Your task to perform on an android device: Search for pizza restaurants on Maps Image 0: 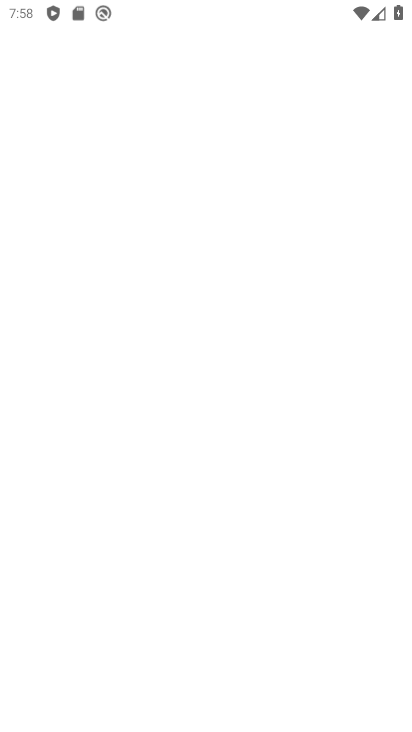
Step 0: drag from (317, 569) to (368, 266)
Your task to perform on an android device: Search for pizza restaurants on Maps Image 1: 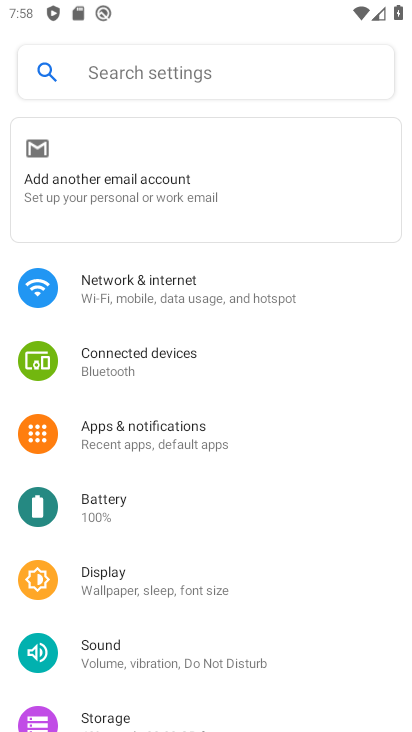
Step 1: press home button
Your task to perform on an android device: Search for pizza restaurants on Maps Image 2: 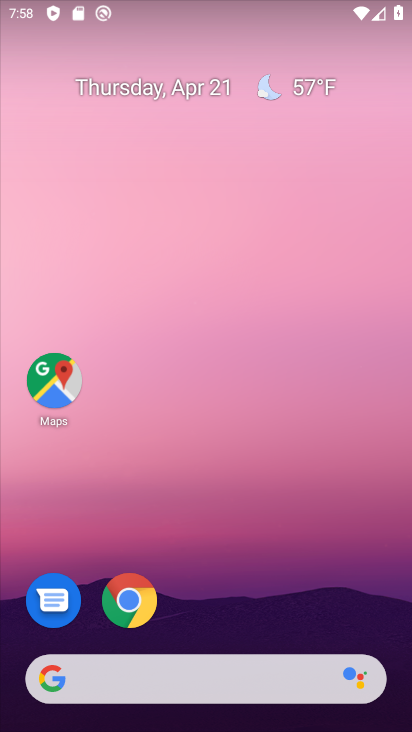
Step 2: click (47, 384)
Your task to perform on an android device: Search for pizza restaurants on Maps Image 3: 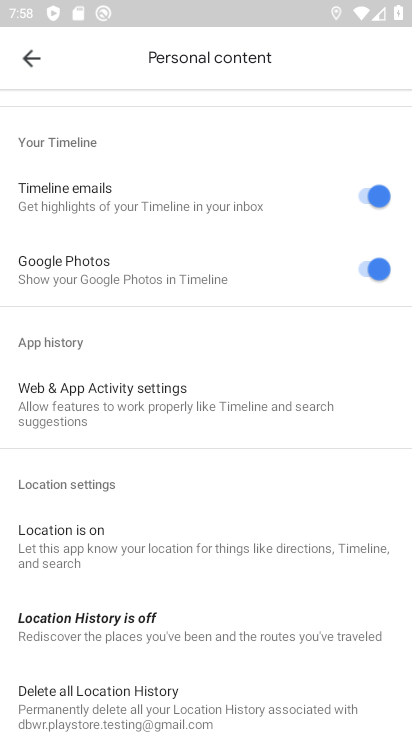
Step 3: click (23, 56)
Your task to perform on an android device: Search for pizza restaurants on Maps Image 4: 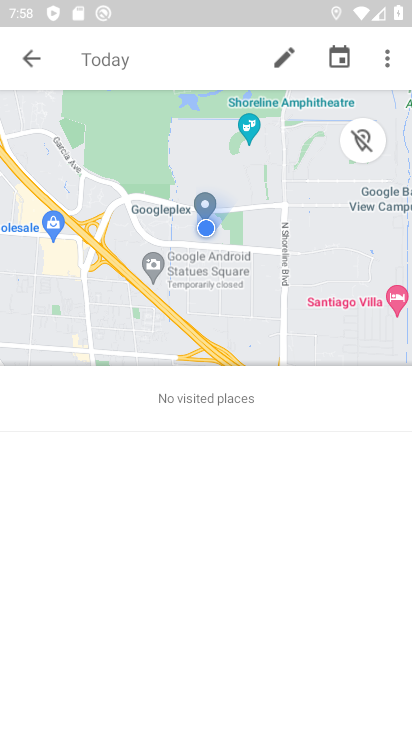
Step 4: click (31, 64)
Your task to perform on an android device: Search for pizza restaurants on Maps Image 5: 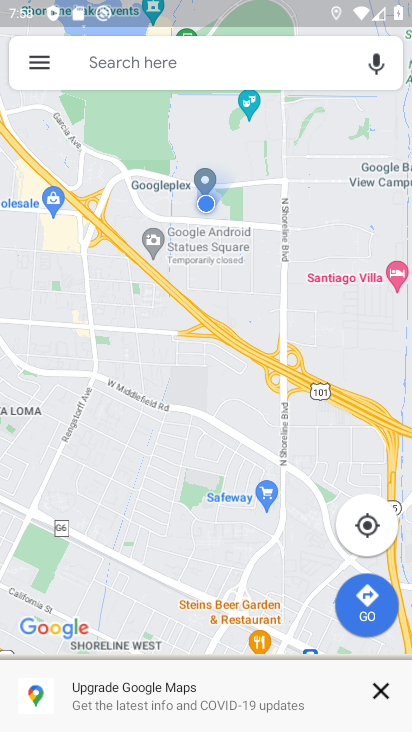
Step 5: click (150, 60)
Your task to perform on an android device: Search for pizza restaurants on Maps Image 6: 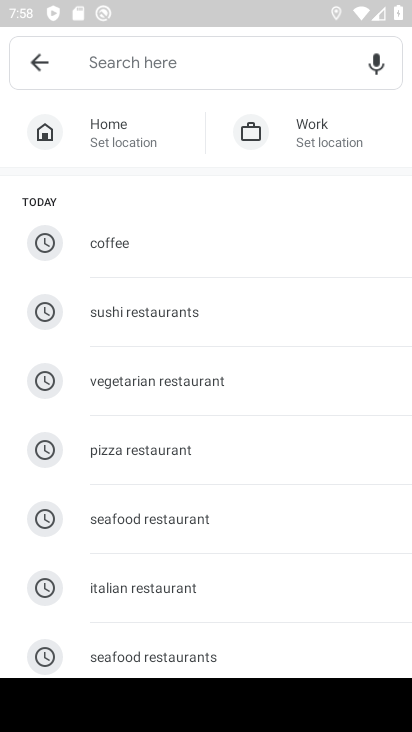
Step 6: click (182, 451)
Your task to perform on an android device: Search for pizza restaurants on Maps Image 7: 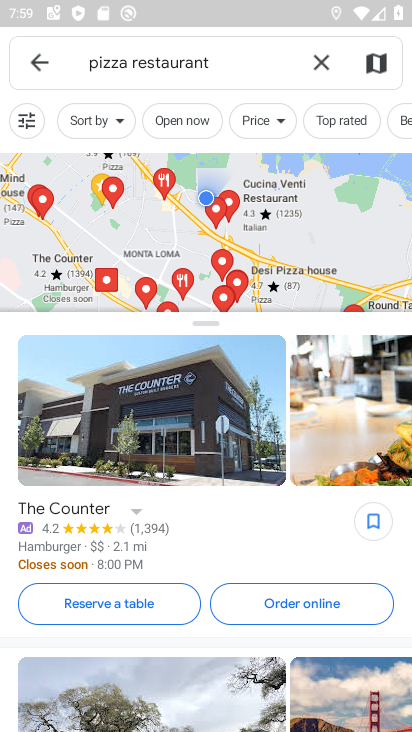
Step 7: task complete